Your task to perform on an android device: Go to internet settings Image 0: 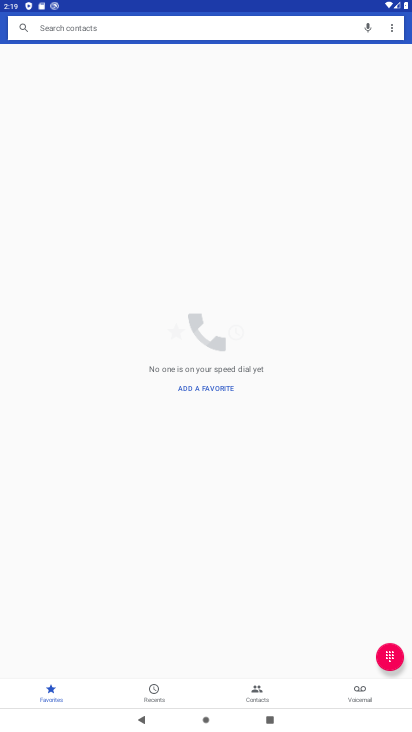
Step 0: press back button
Your task to perform on an android device: Go to internet settings Image 1: 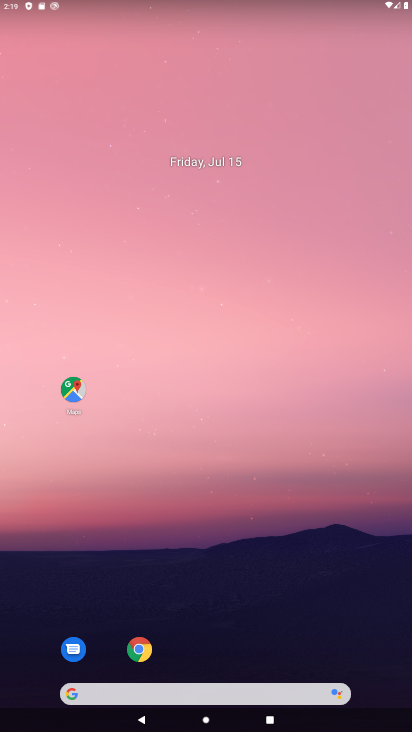
Step 1: drag from (195, 536) to (206, 117)
Your task to perform on an android device: Go to internet settings Image 2: 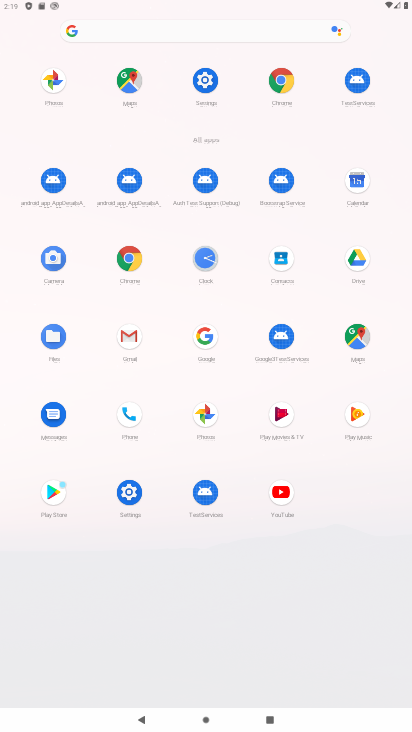
Step 2: click (209, 75)
Your task to perform on an android device: Go to internet settings Image 3: 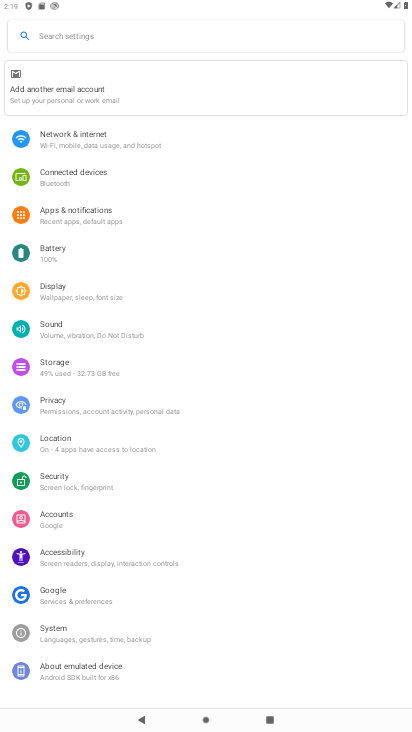
Step 3: click (51, 141)
Your task to perform on an android device: Go to internet settings Image 4: 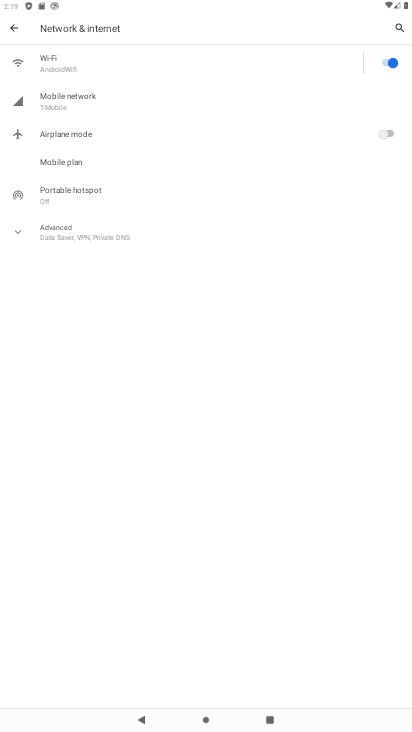
Step 4: task complete